Your task to perform on an android device: Go to Reddit.com Image 0: 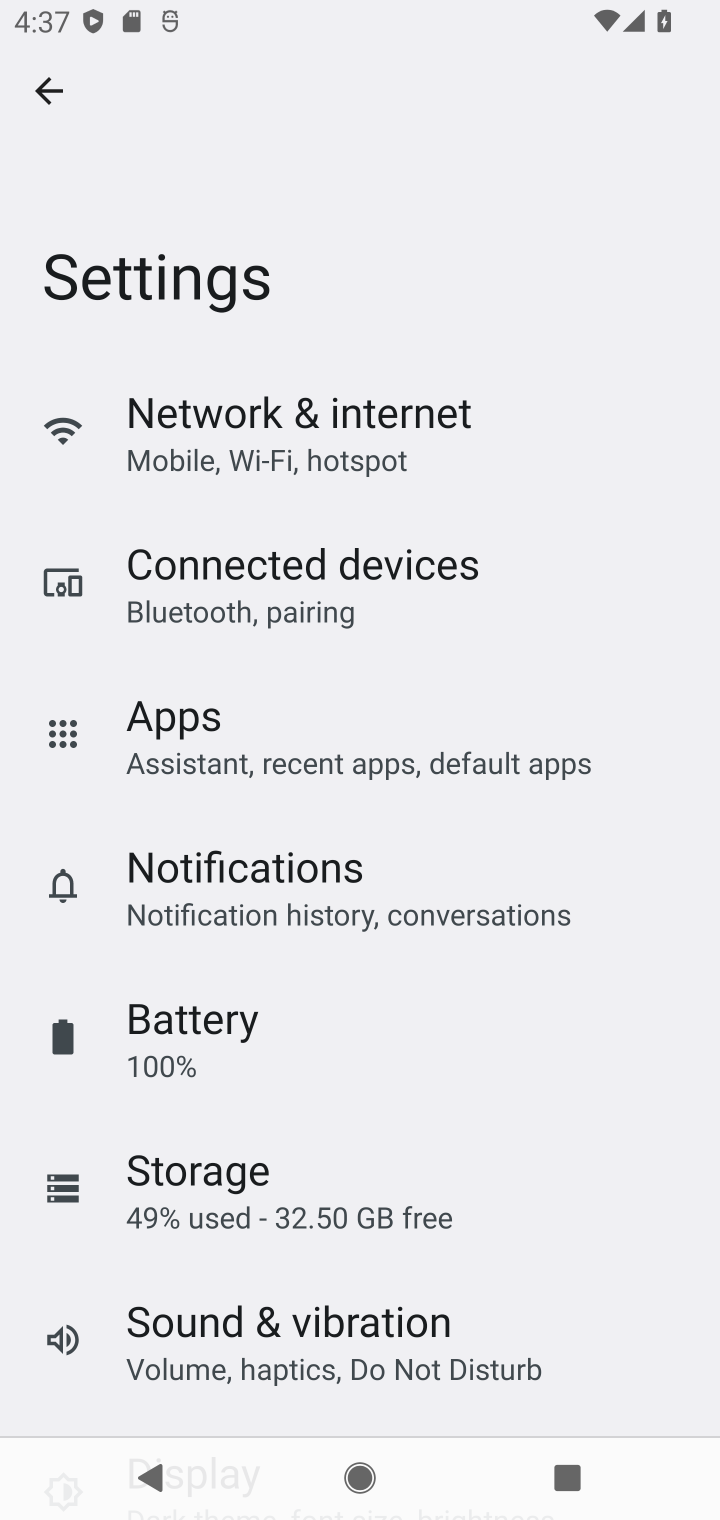
Step 0: press home button
Your task to perform on an android device: Go to Reddit.com Image 1: 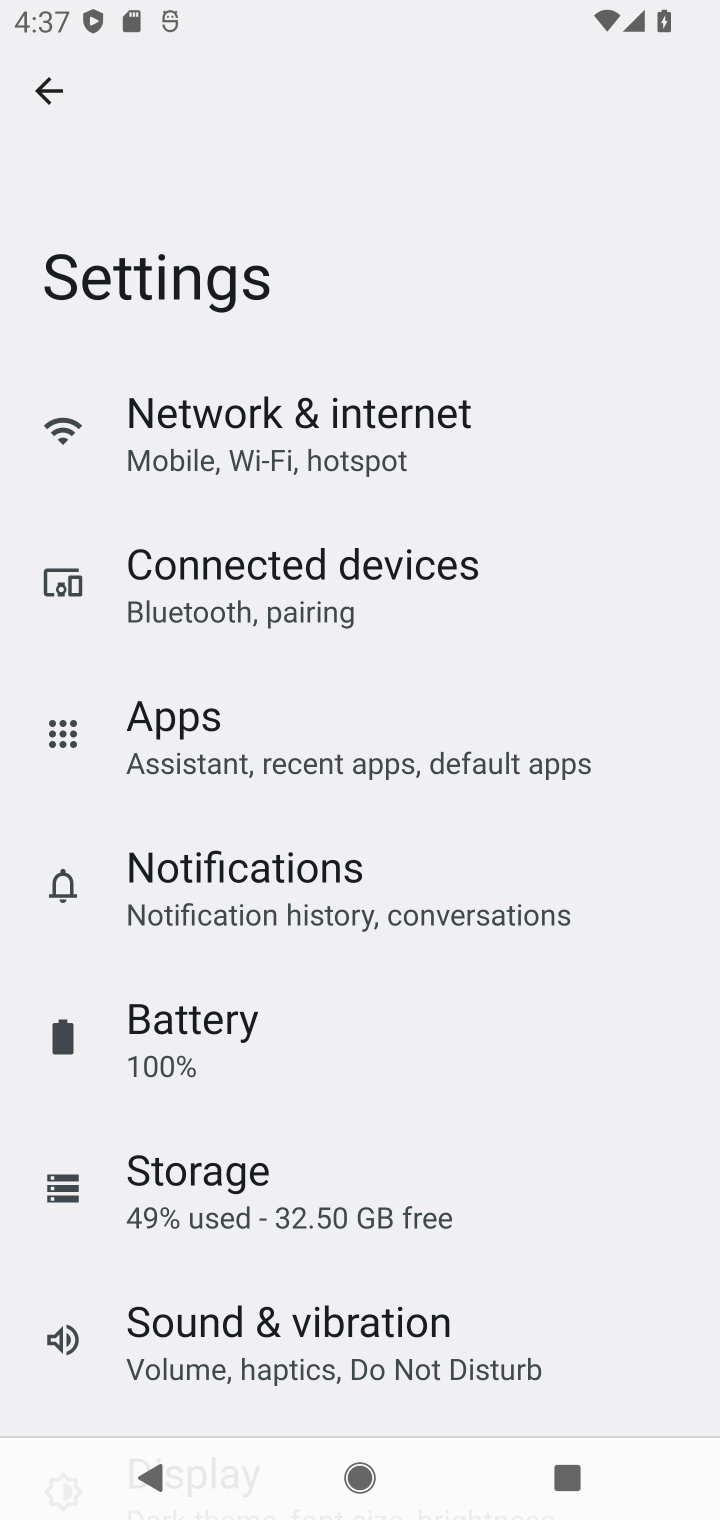
Step 1: press home button
Your task to perform on an android device: Go to Reddit.com Image 2: 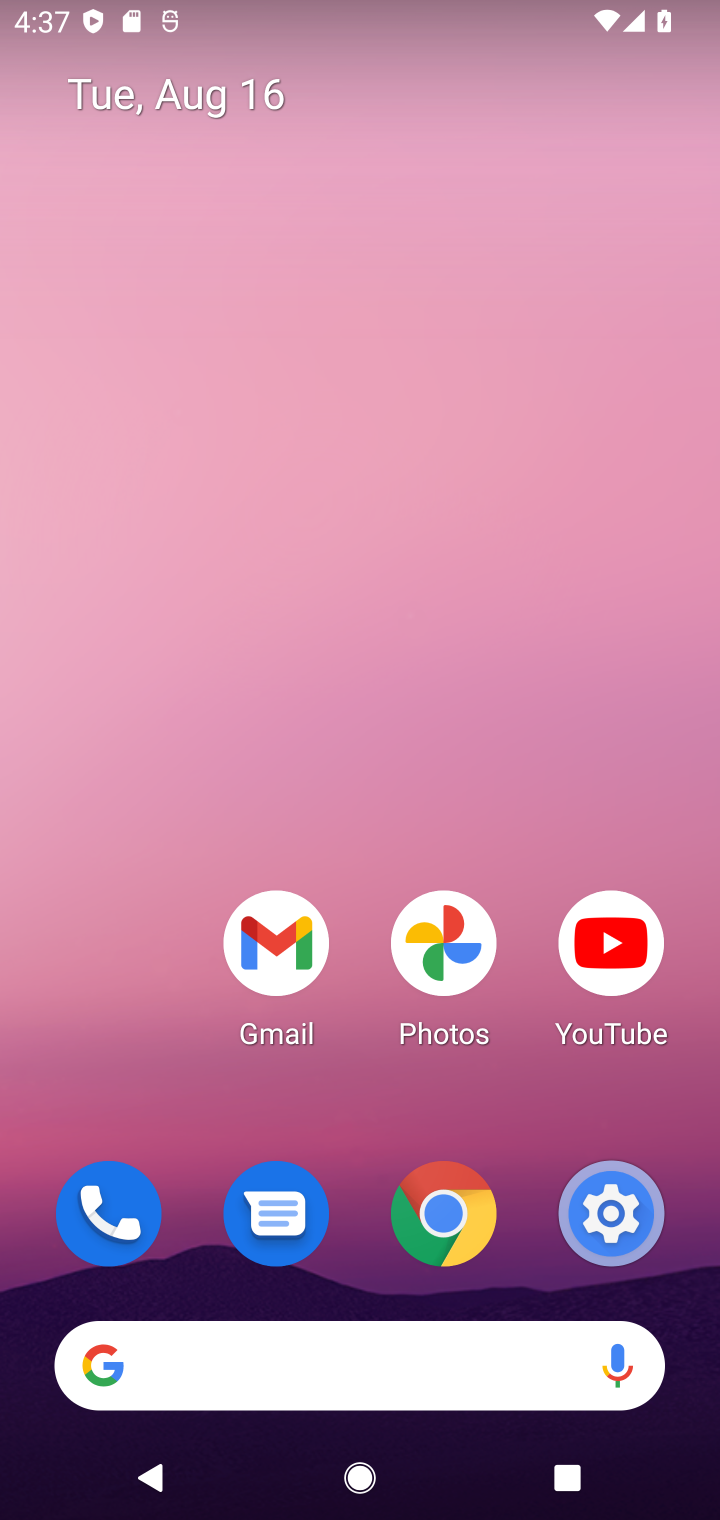
Step 2: click (436, 1222)
Your task to perform on an android device: Go to Reddit.com Image 3: 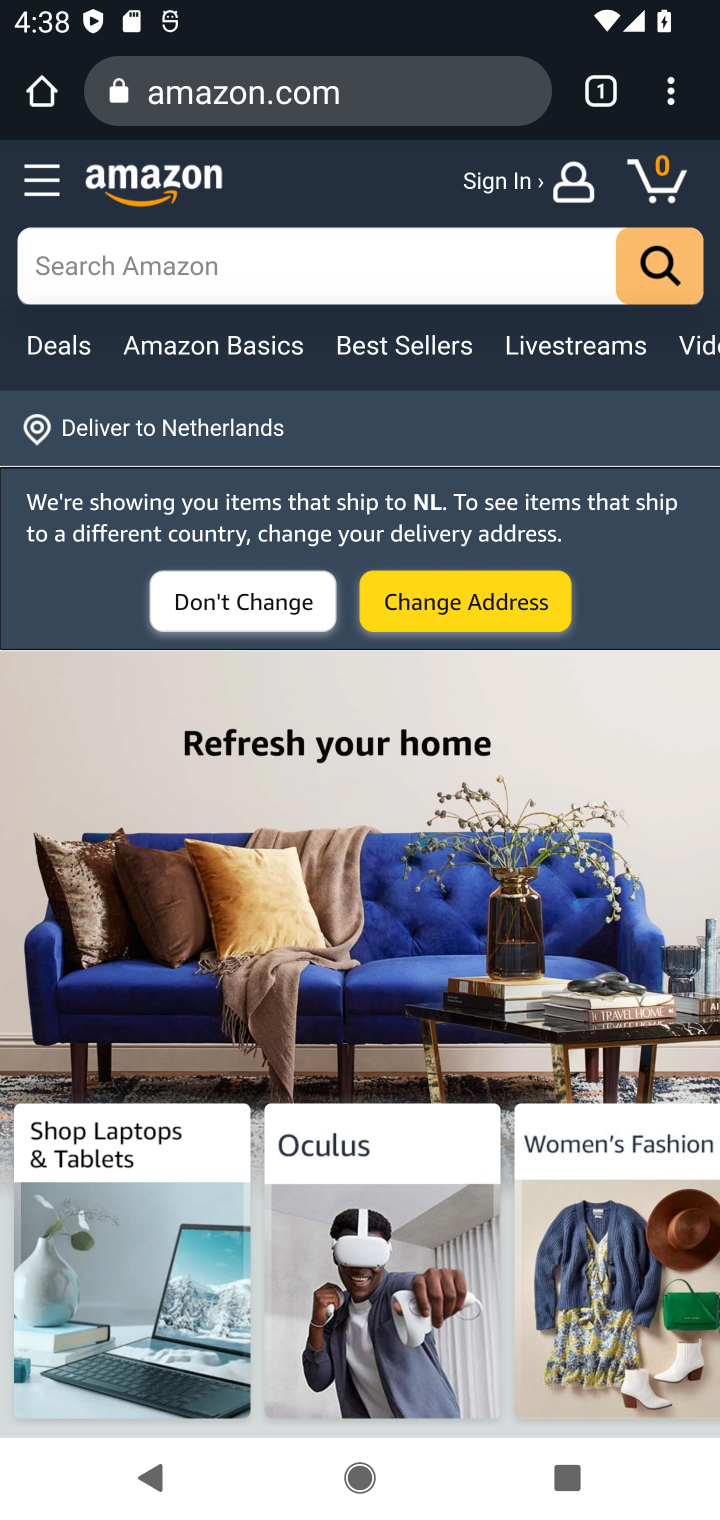
Step 3: click (262, 92)
Your task to perform on an android device: Go to Reddit.com Image 4: 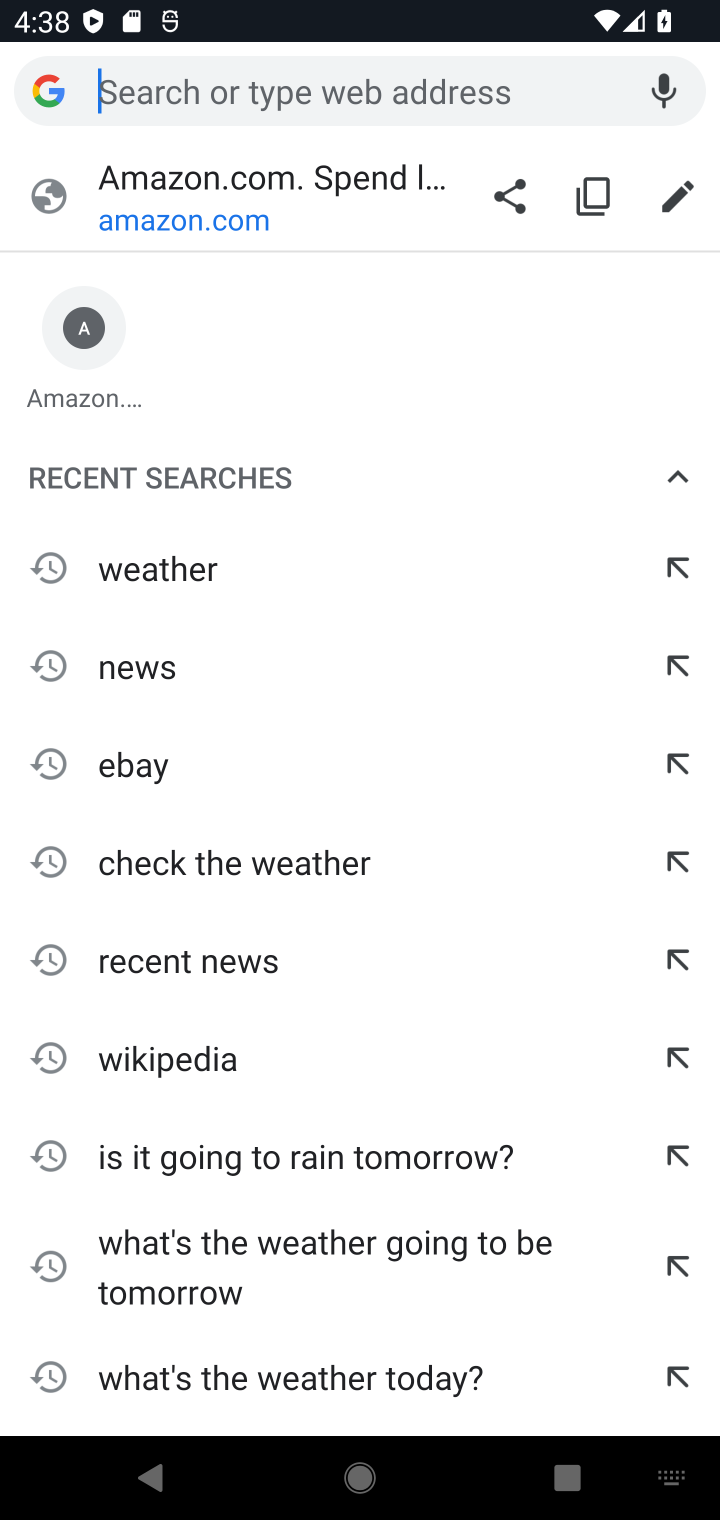
Step 4: type "reddit.com"
Your task to perform on an android device: Go to Reddit.com Image 5: 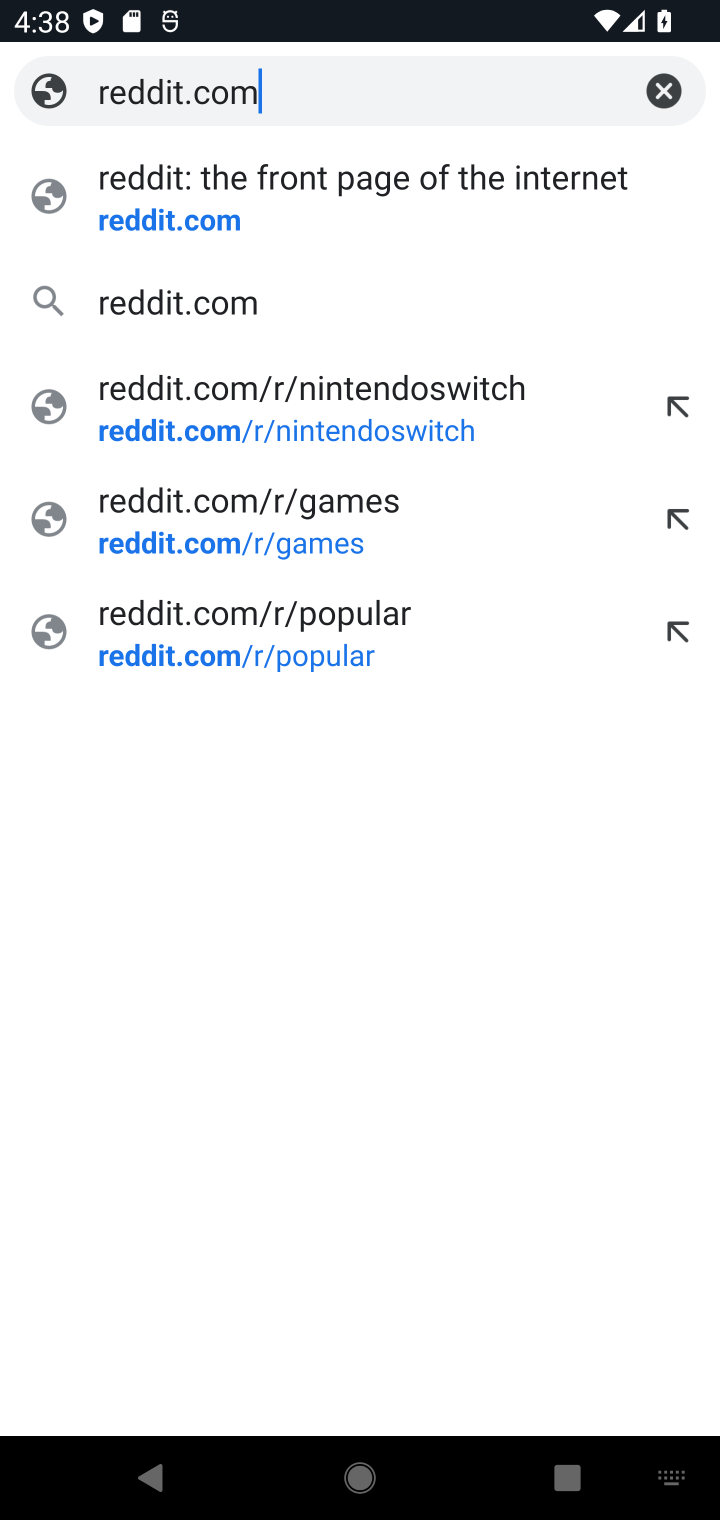
Step 5: click (212, 207)
Your task to perform on an android device: Go to Reddit.com Image 6: 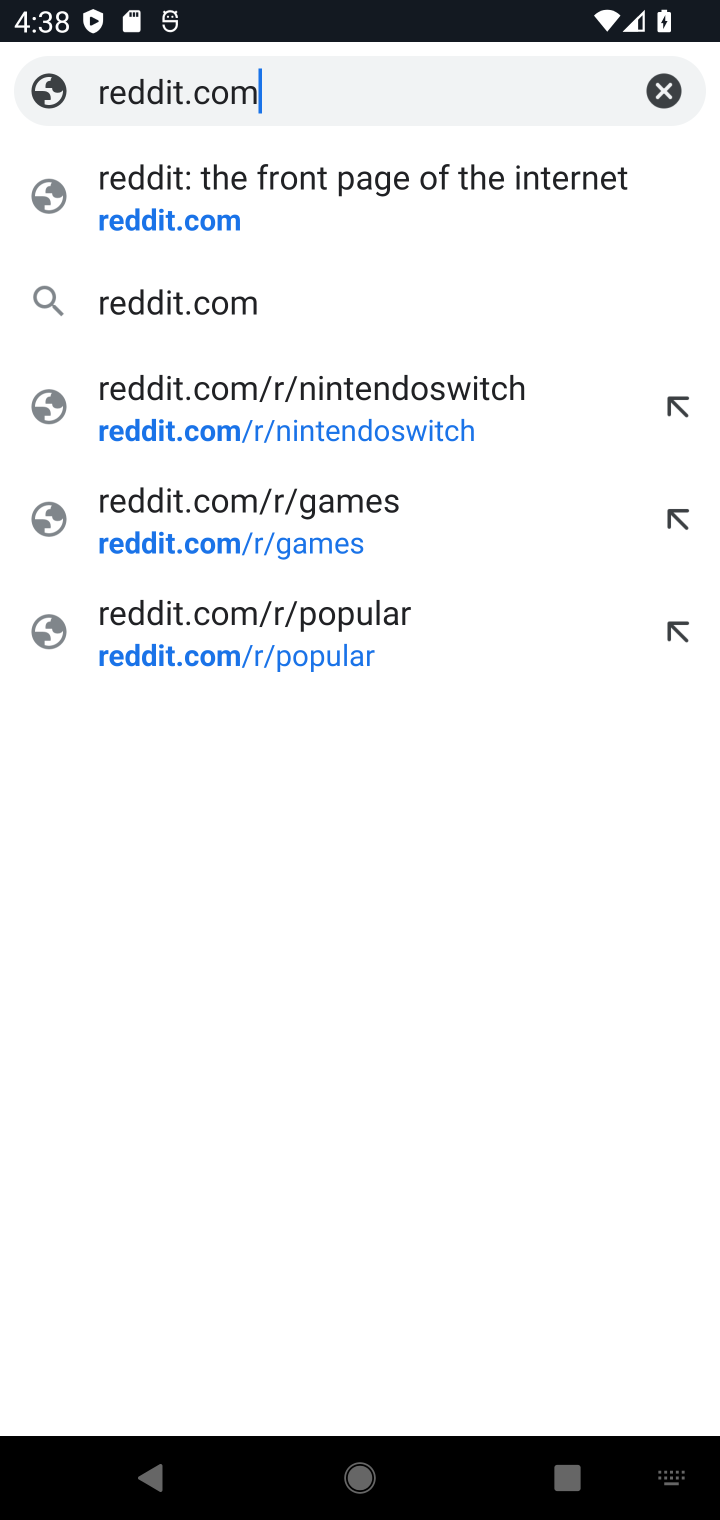
Step 6: click (212, 212)
Your task to perform on an android device: Go to Reddit.com Image 7: 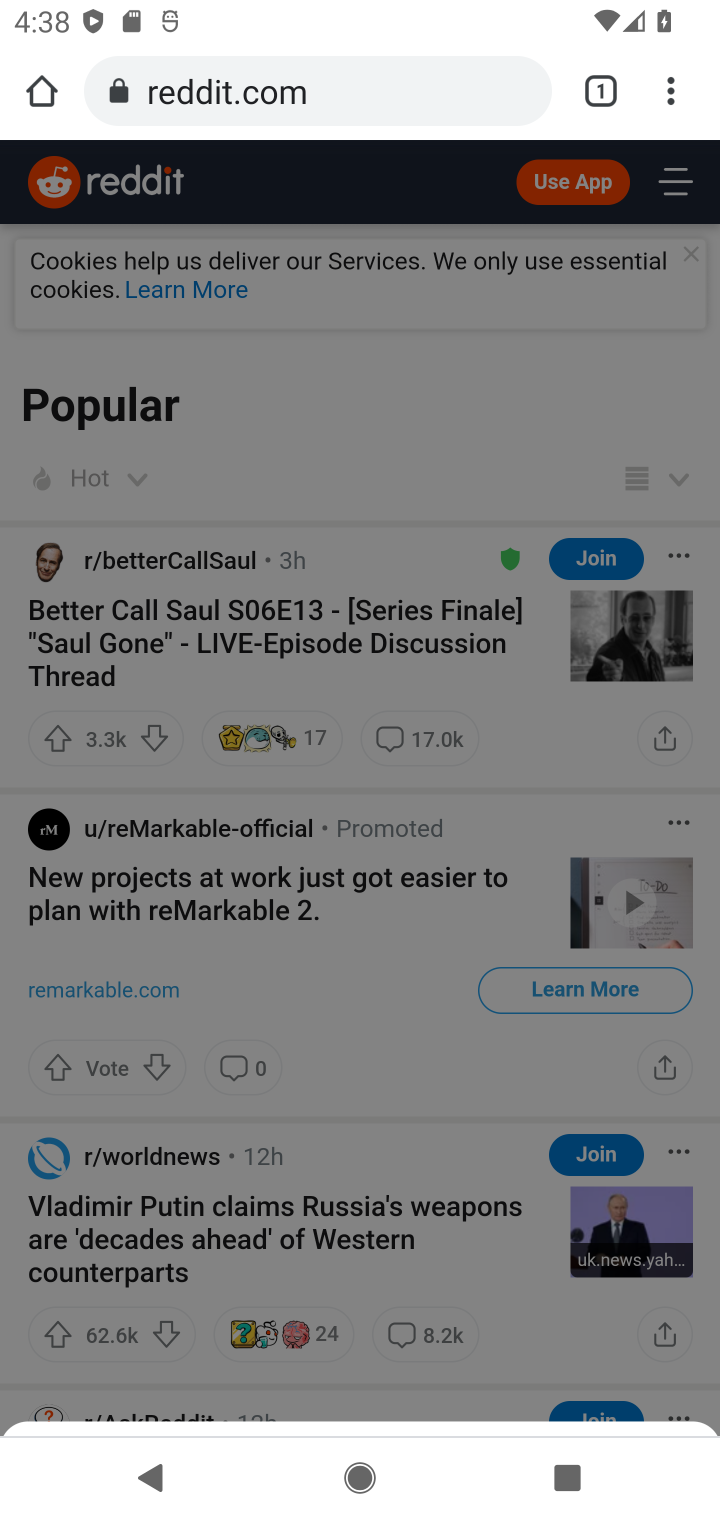
Step 7: task complete